Your task to perform on an android device: open app "NewsBreak: Local News & Alerts" Image 0: 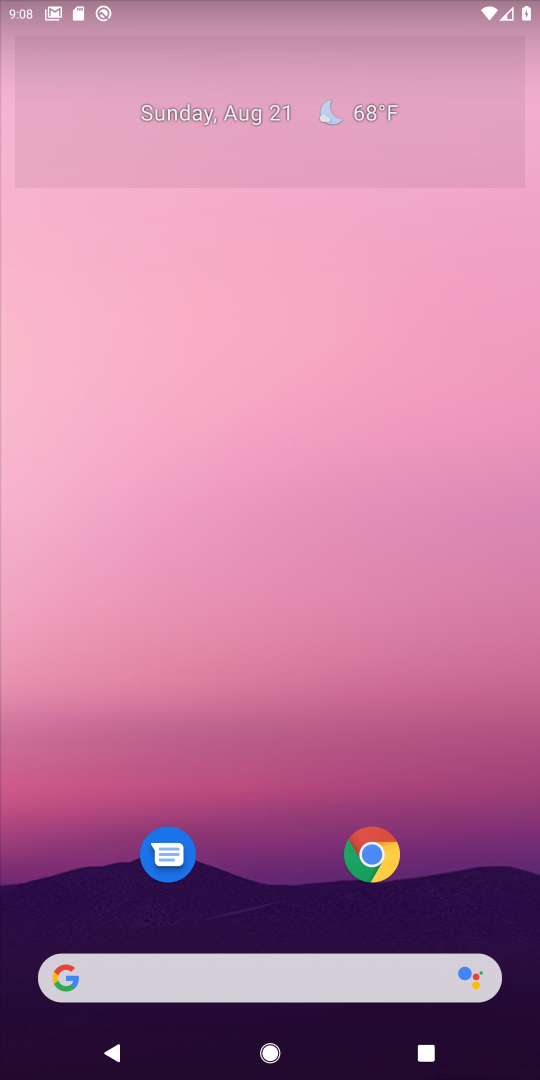
Step 0: drag from (303, 916) to (291, 276)
Your task to perform on an android device: open app "NewsBreak: Local News & Alerts" Image 1: 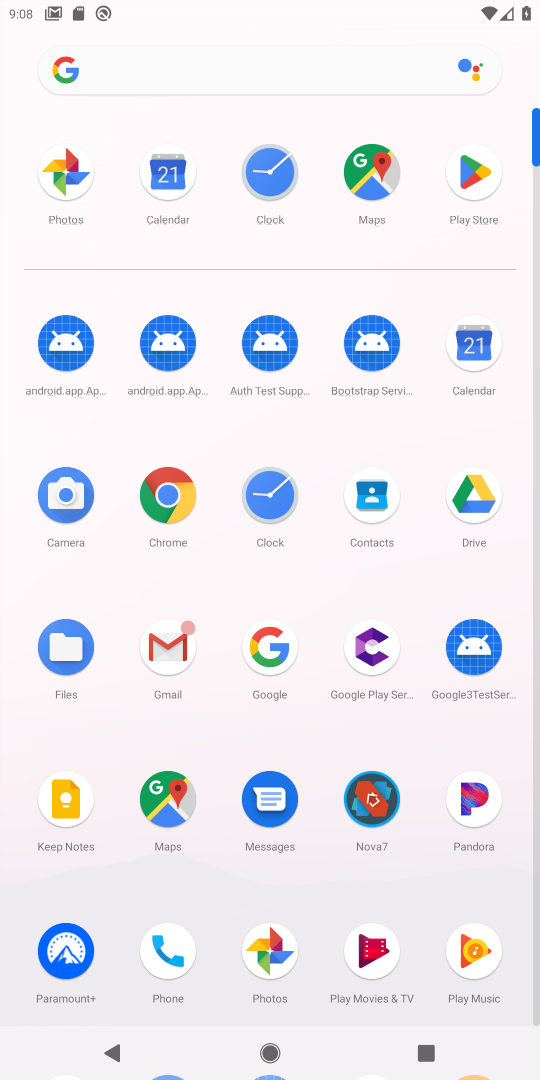
Step 1: click (478, 201)
Your task to perform on an android device: open app "NewsBreak: Local News & Alerts" Image 2: 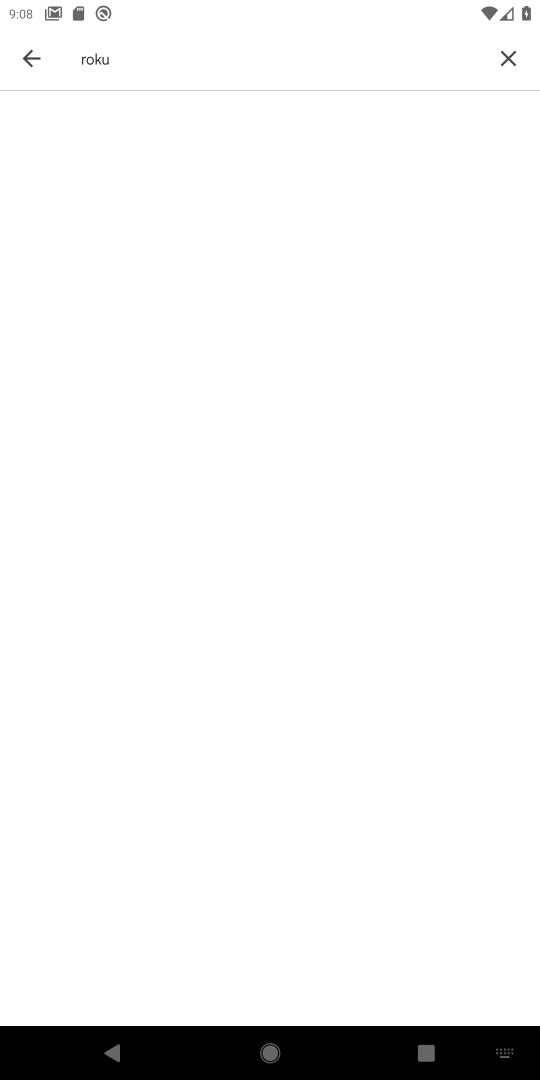
Step 2: click (487, 64)
Your task to perform on an android device: open app "NewsBreak: Local News & Alerts" Image 3: 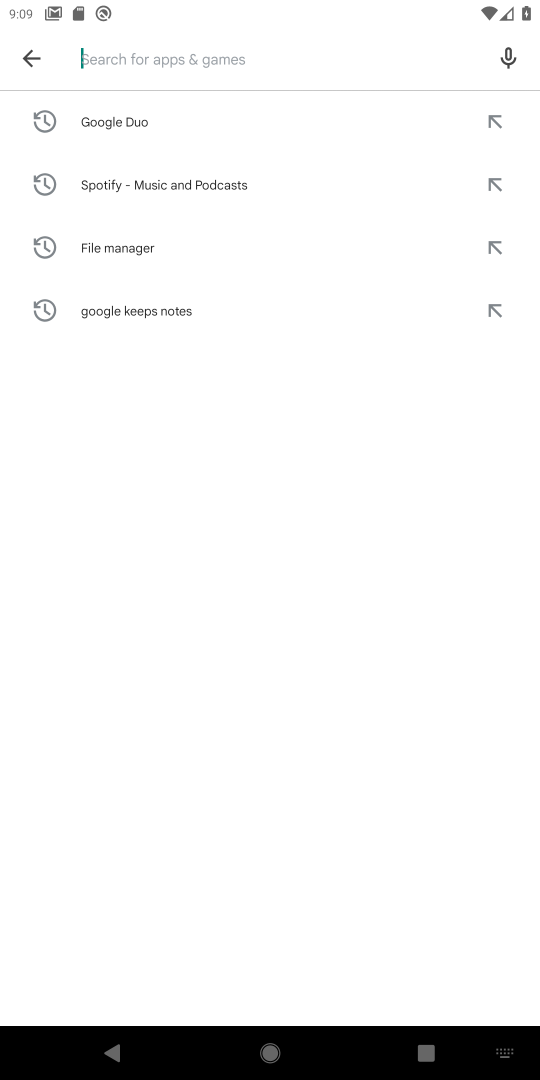
Step 3: type "newsbreak"
Your task to perform on an android device: open app "NewsBreak: Local News & Alerts" Image 4: 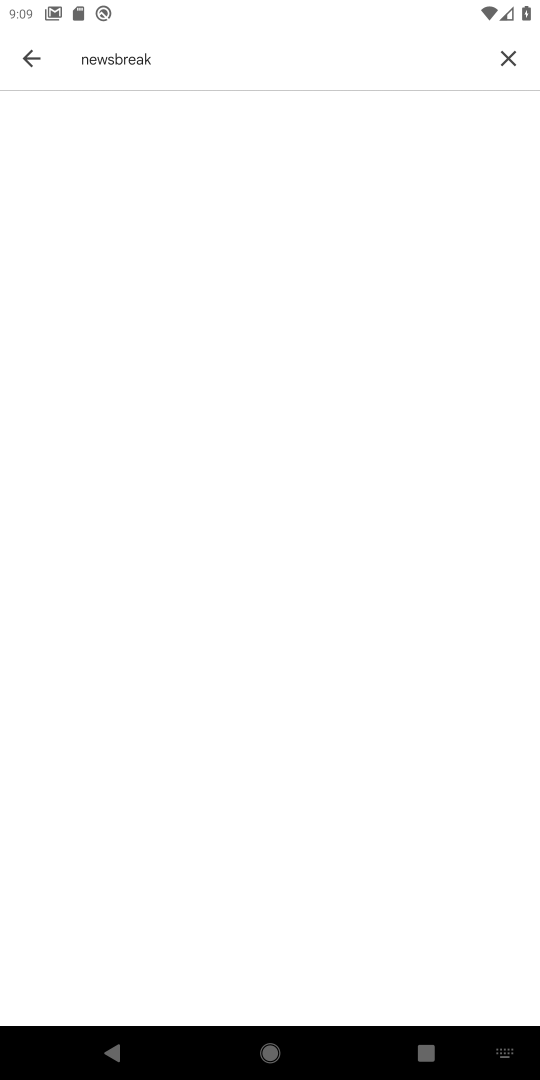
Step 4: task complete